Your task to perform on an android device: Search for Mexican restaurants on Maps Image 0: 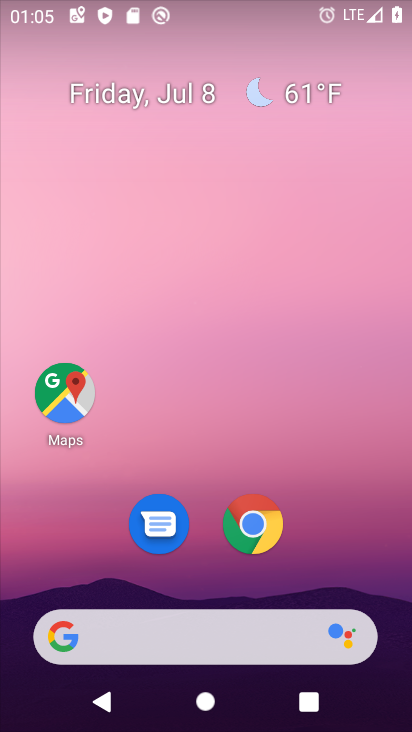
Step 0: click (52, 392)
Your task to perform on an android device: Search for Mexican restaurants on Maps Image 1: 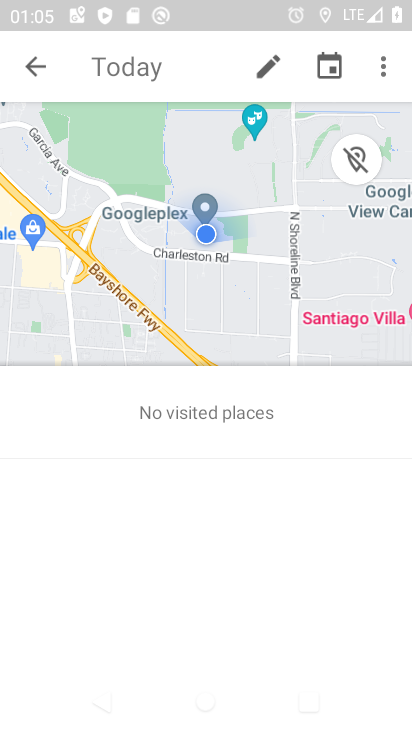
Step 1: click (35, 64)
Your task to perform on an android device: Search for Mexican restaurants on Maps Image 2: 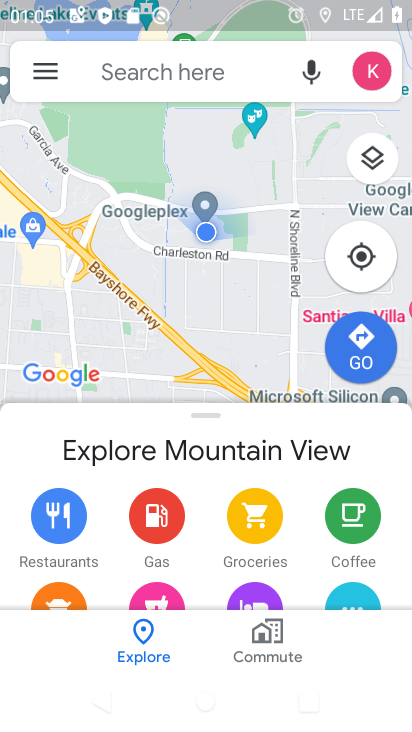
Step 2: click (105, 64)
Your task to perform on an android device: Search for Mexican restaurants on Maps Image 3: 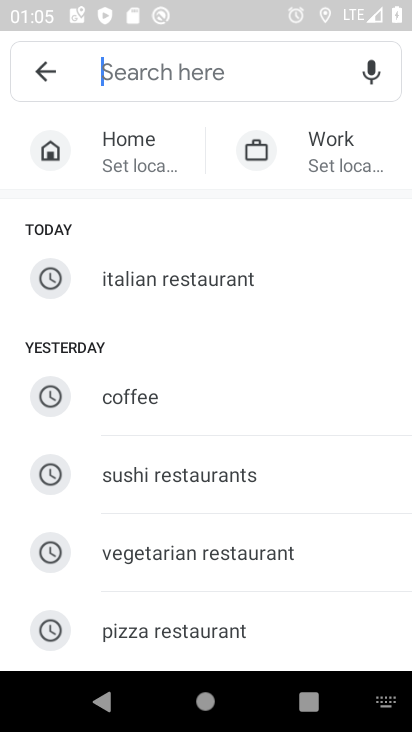
Step 3: drag from (221, 569) to (223, 330)
Your task to perform on an android device: Search for Mexican restaurants on Maps Image 4: 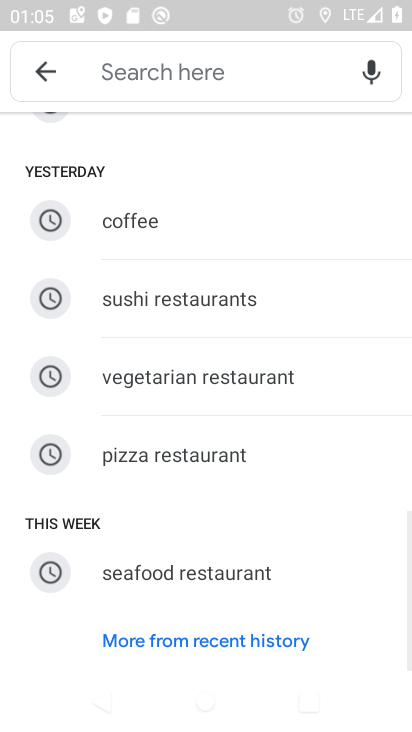
Step 4: click (224, 287)
Your task to perform on an android device: Search for Mexican restaurants on Maps Image 5: 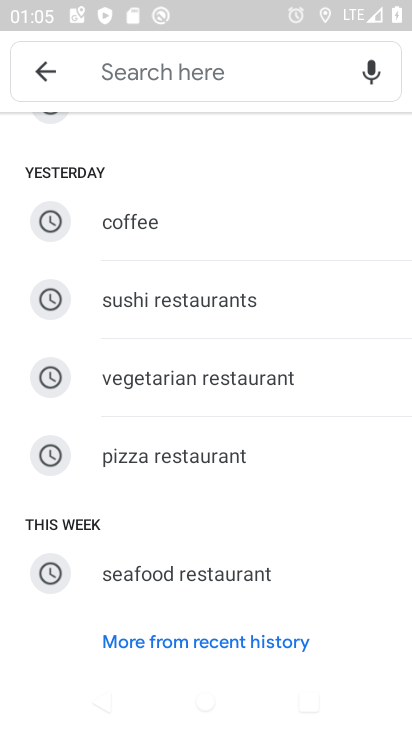
Step 5: click (258, 635)
Your task to perform on an android device: Search for Mexican restaurants on Maps Image 6: 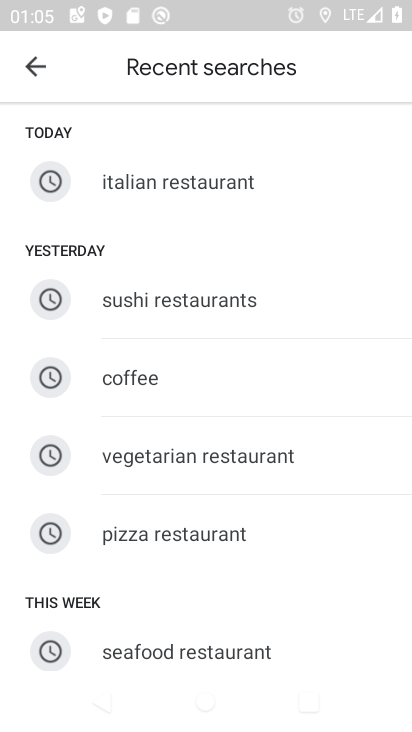
Step 6: drag from (273, 540) to (236, 211)
Your task to perform on an android device: Search for Mexican restaurants on Maps Image 7: 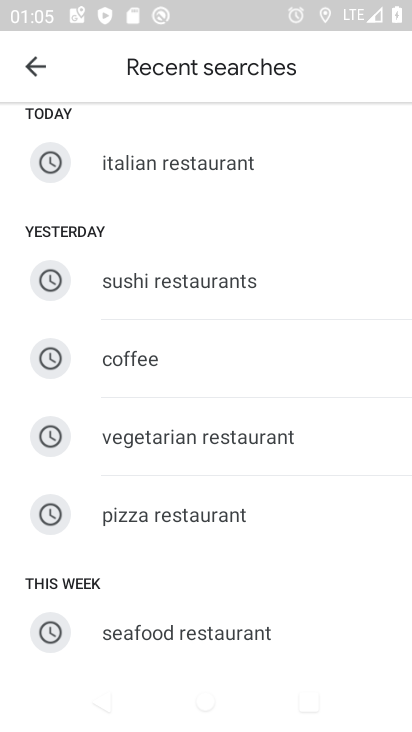
Step 7: drag from (228, 247) to (241, 581)
Your task to perform on an android device: Search for Mexican restaurants on Maps Image 8: 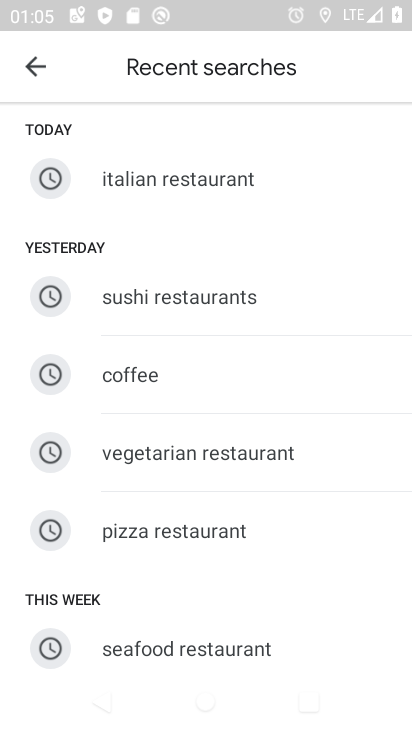
Step 8: click (255, 54)
Your task to perform on an android device: Search for Mexican restaurants on Maps Image 9: 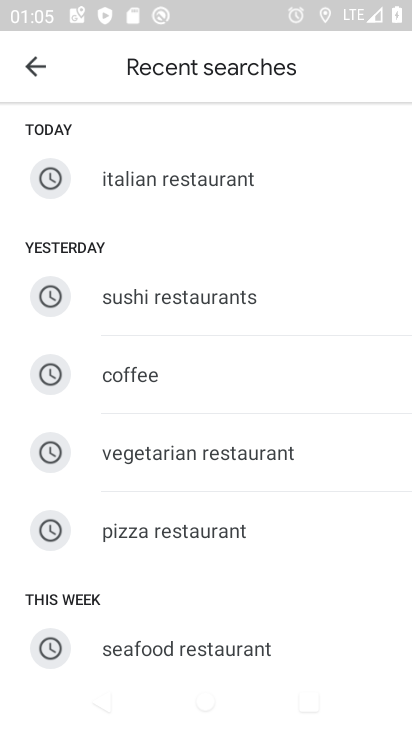
Step 9: click (36, 61)
Your task to perform on an android device: Search for Mexican restaurants on Maps Image 10: 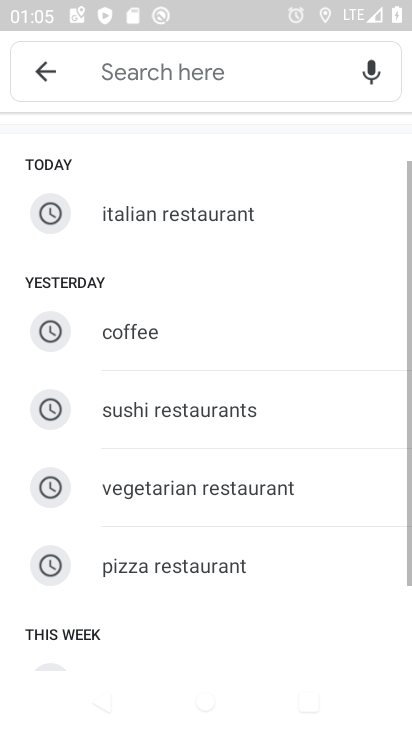
Step 10: click (188, 75)
Your task to perform on an android device: Search for Mexican restaurants on Maps Image 11: 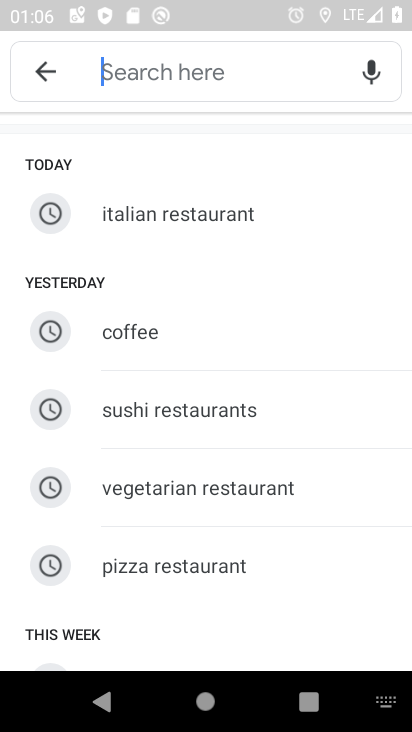
Step 11: type "Mexican restaurants"
Your task to perform on an android device: Search for Mexican restaurants on Maps Image 12: 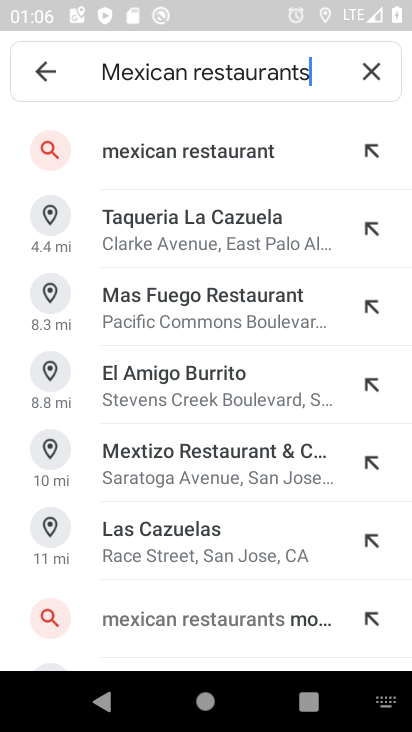
Step 12: click (259, 150)
Your task to perform on an android device: Search for Mexican restaurants on Maps Image 13: 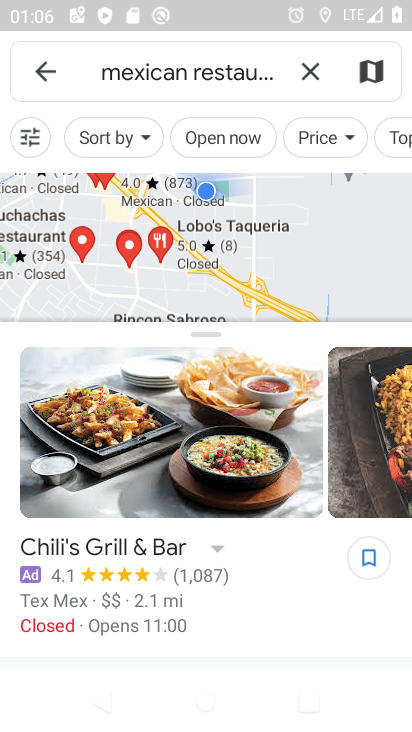
Step 13: task complete